Your task to perform on an android device: check storage Image 0: 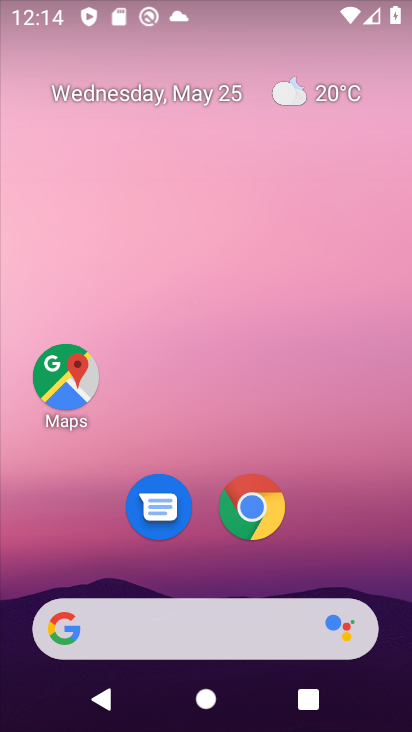
Step 0: drag from (356, 532) to (356, 174)
Your task to perform on an android device: check storage Image 1: 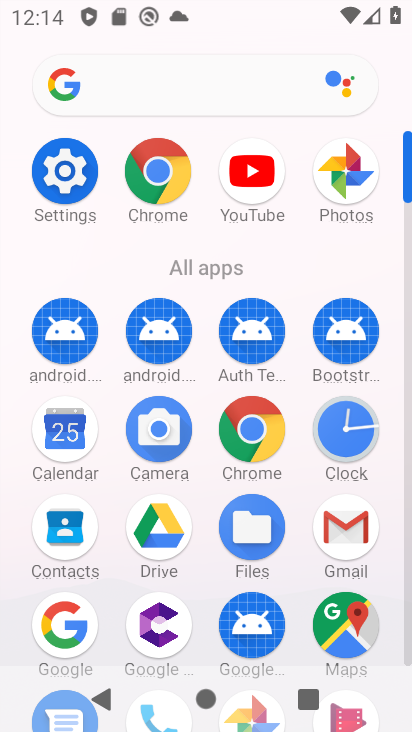
Step 1: click (57, 196)
Your task to perform on an android device: check storage Image 2: 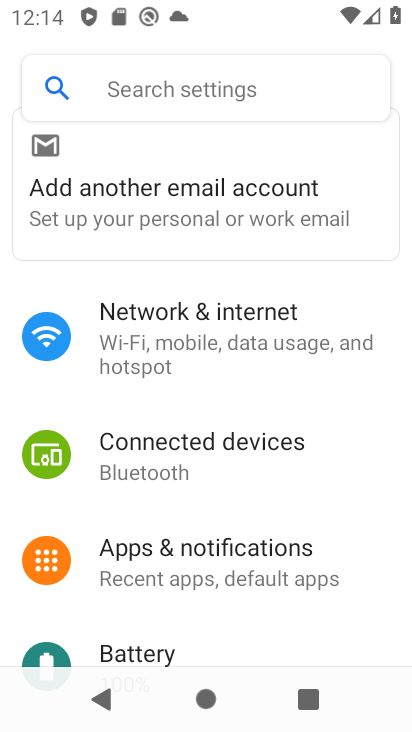
Step 2: drag from (172, 626) to (164, 171)
Your task to perform on an android device: check storage Image 3: 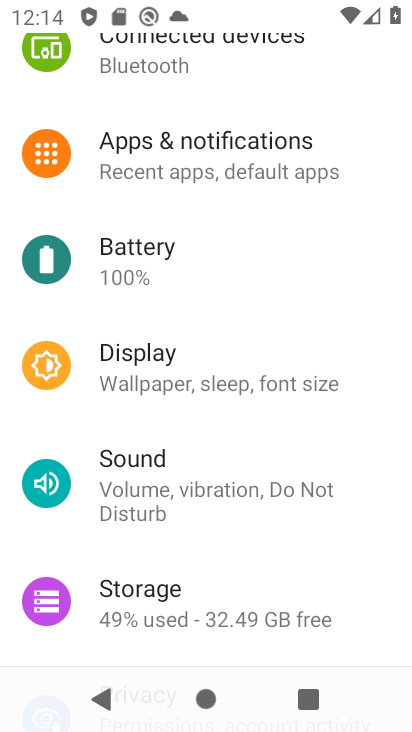
Step 3: drag from (209, 578) to (226, 304)
Your task to perform on an android device: check storage Image 4: 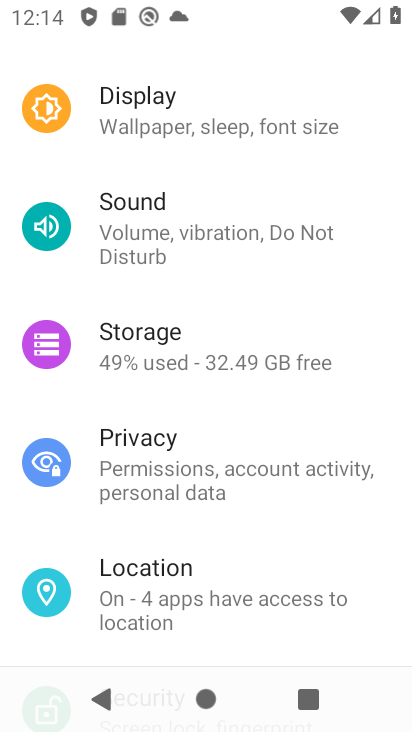
Step 4: click (192, 349)
Your task to perform on an android device: check storage Image 5: 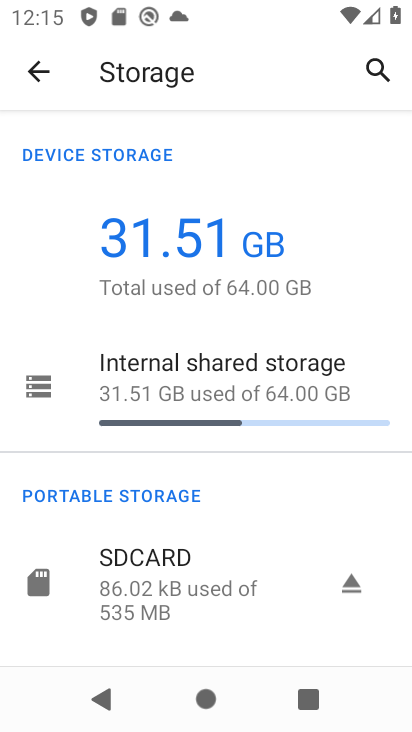
Step 5: click (46, 389)
Your task to perform on an android device: check storage Image 6: 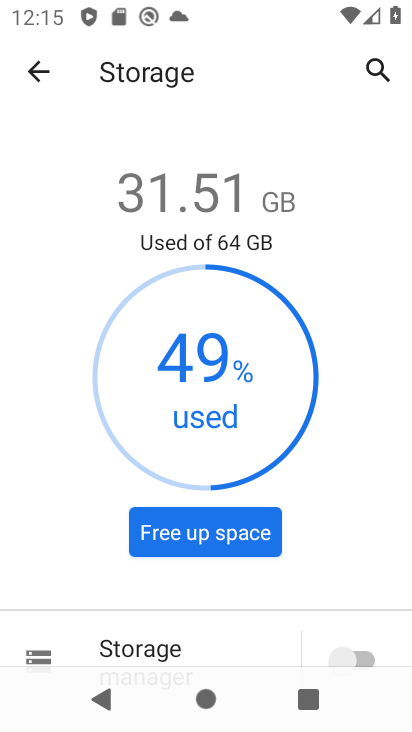
Step 6: task complete